Your task to perform on an android device: Open wifi settings Image 0: 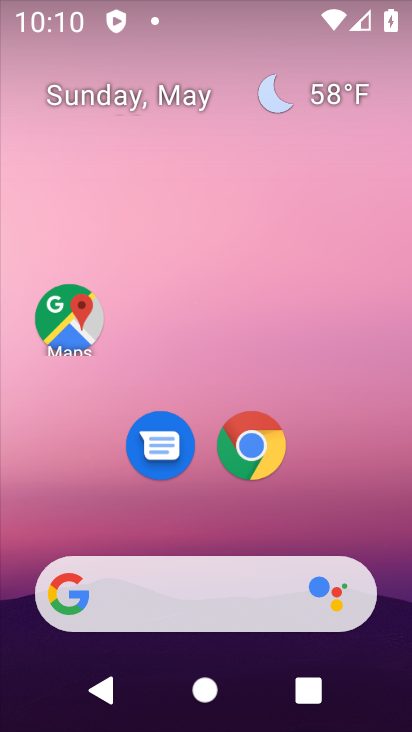
Step 0: drag from (345, 552) to (195, 8)
Your task to perform on an android device: Open wifi settings Image 1: 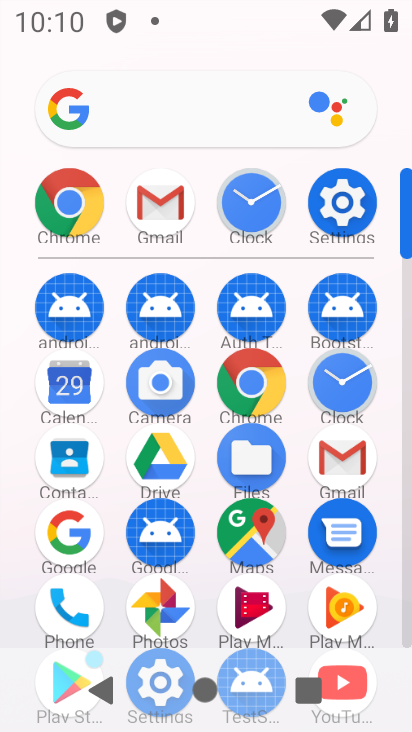
Step 1: drag from (19, 598) to (20, 307)
Your task to perform on an android device: Open wifi settings Image 2: 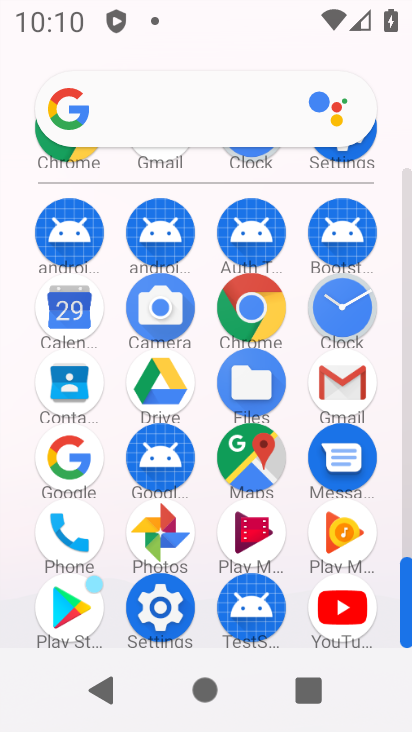
Step 2: click (158, 605)
Your task to perform on an android device: Open wifi settings Image 3: 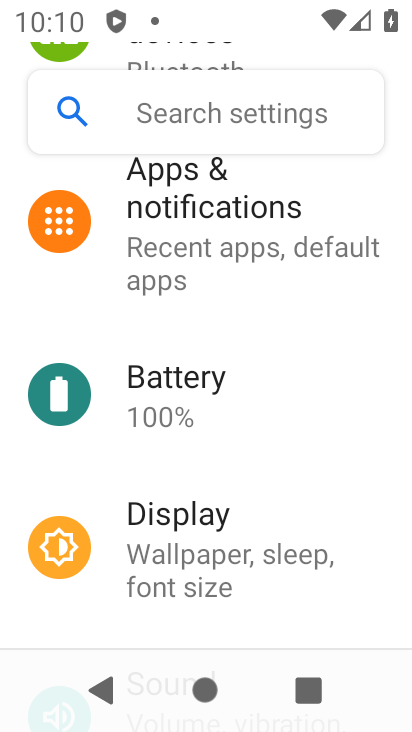
Step 3: drag from (310, 235) to (266, 649)
Your task to perform on an android device: Open wifi settings Image 4: 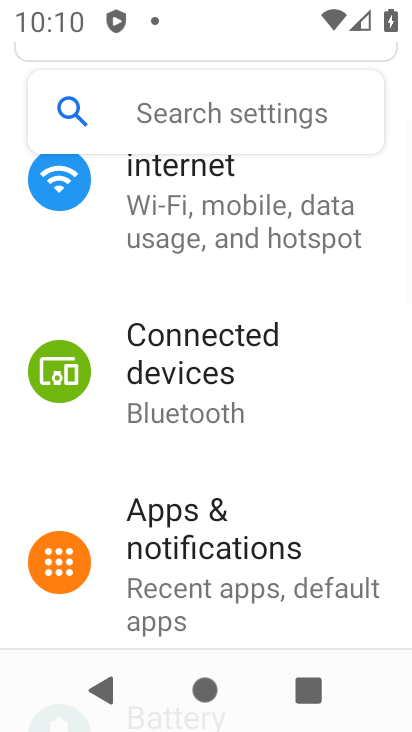
Step 4: drag from (296, 241) to (299, 518)
Your task to perform on an android device: Open wifi settings Image 5: 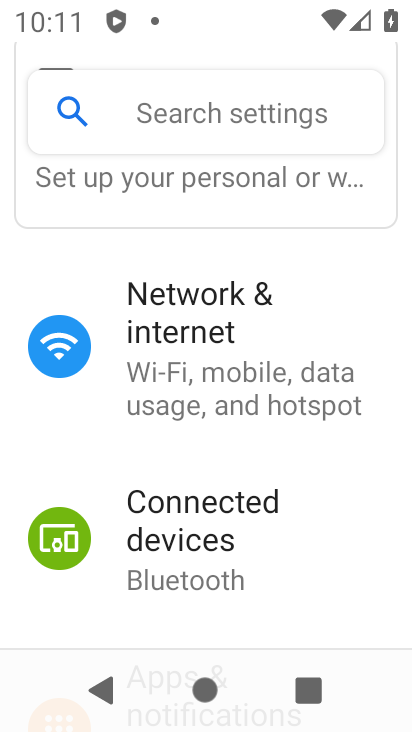
Step 5: click (250, 356)
Your task to perform on an android device: Open wifi settings Image 6: 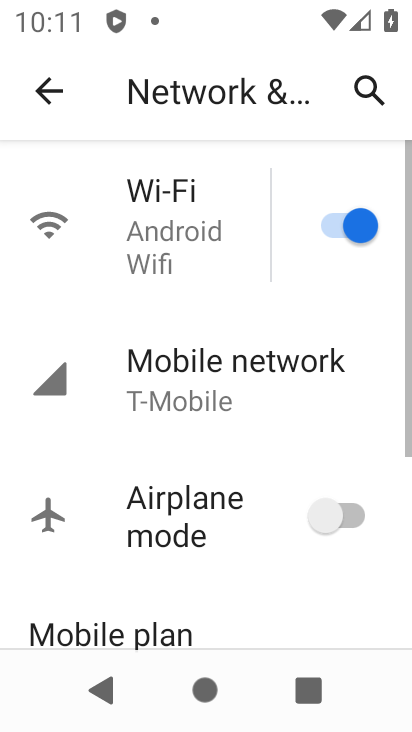
Step 6: click (195, 203)
Your task to perform on an android device: Open wifi settings Image 7: 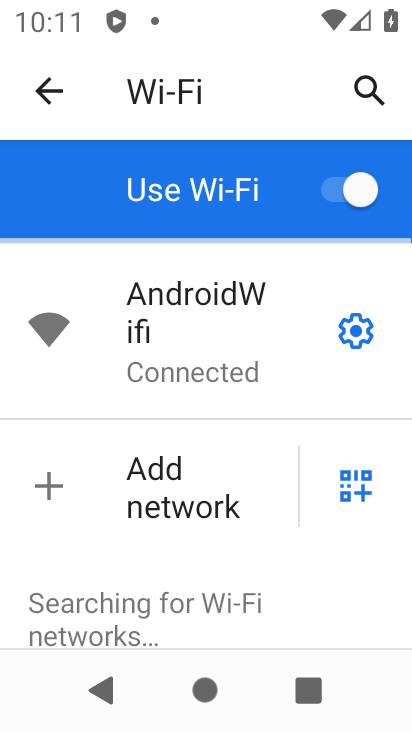
Step 7: task complete